Your task to perform on an android device: Go to privacy settings Image 0: 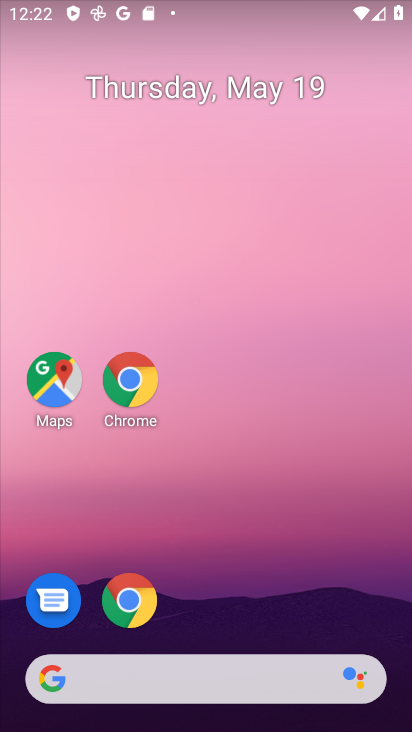
Step 0: drag from (298, 702) to (119, 120)
Your task to perform on an android device: Go to privacy settings Image 1: 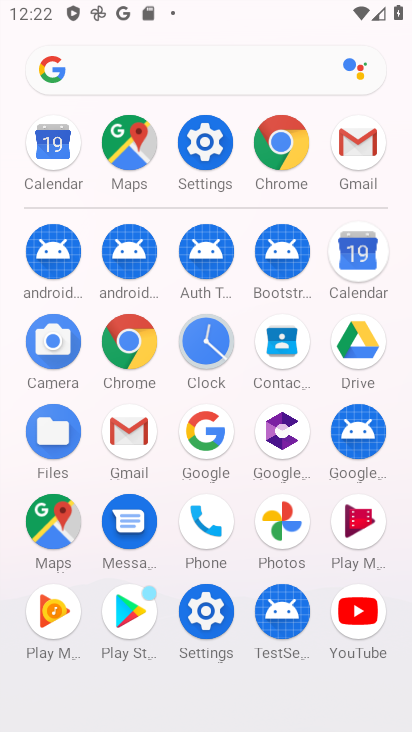
Step 1: click (193, 139)
Your task to perform on an android device: Go to privacy settings Image 2: 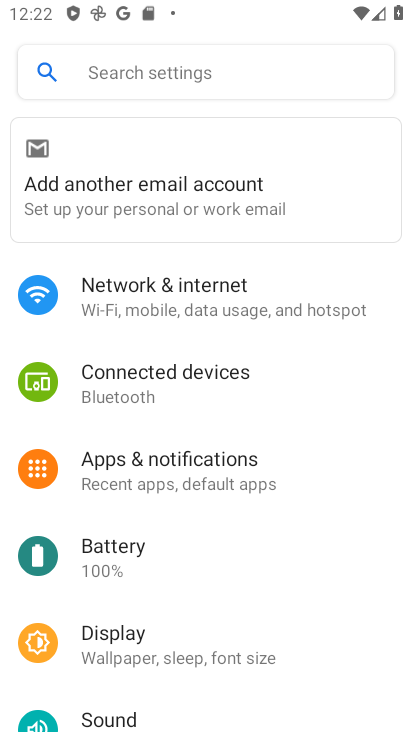
Step 2: drag from (146, 538) to (126, 236)
Your task to perform on an android device: Go to privacy settings Image 3: 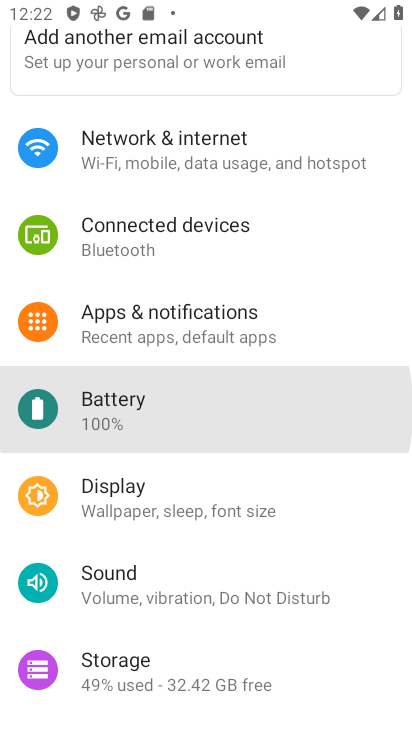
Step 3: drag from (104, 473) to (84, 212)
Your task to perform on an android device: Go to privacy settings Image 4: 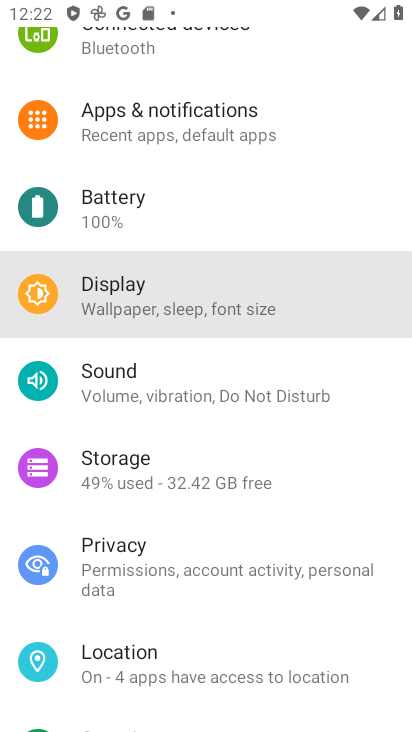
Step 4: drag from (127, 474) to (171, 150)
Your task to perform on an android device: Go to privacy settings Image 5: 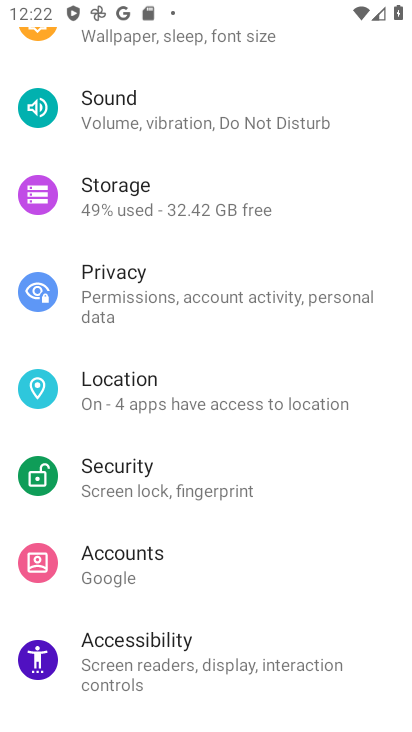
Step 5: click (118, 292)
Your task to perform on an android device: Go to privacy settings Image 6: 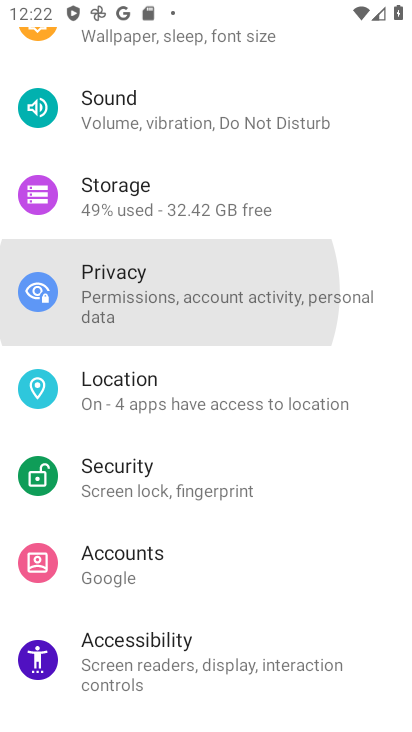
Step 6: click (118, 292)
Your task to perform on an android device: Go to privacy settings Image 7: 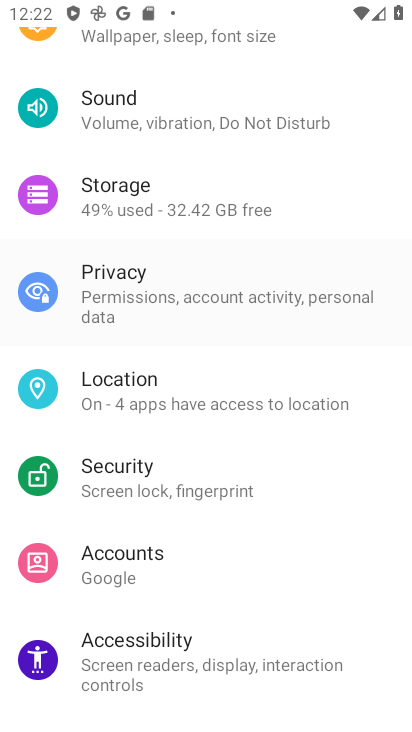
Step 7: click (118, 291)
Your task to perform on an android device: Go to privacy settings Image 8: 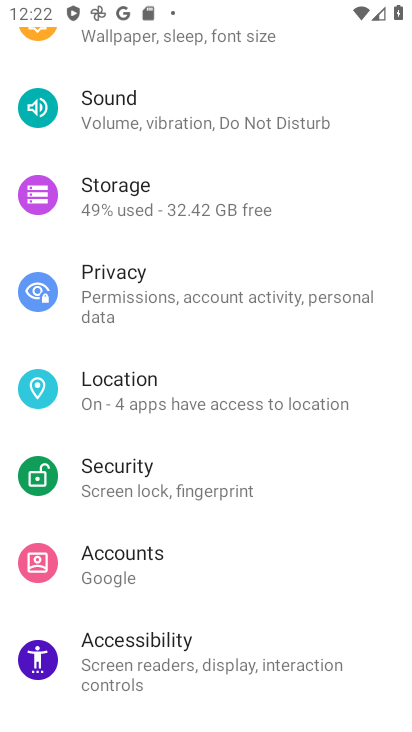
Step 8: click (123, 289)
Your task to perform on an android device: Go to privacy settings Image 9: 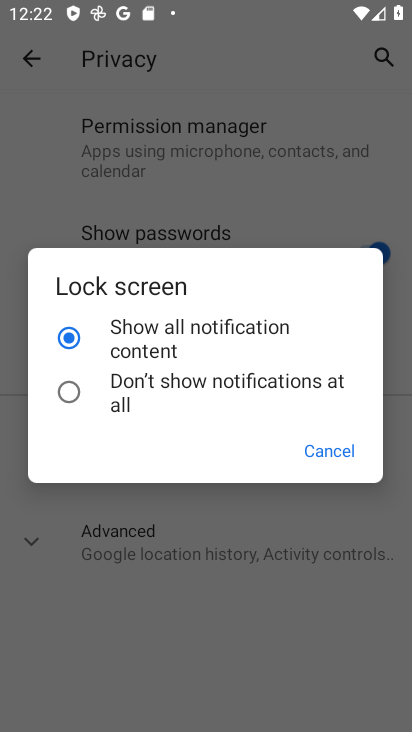
Step 9: click (327, 446)
Your task to perform on an android device: Go to privacy settings Image 10: 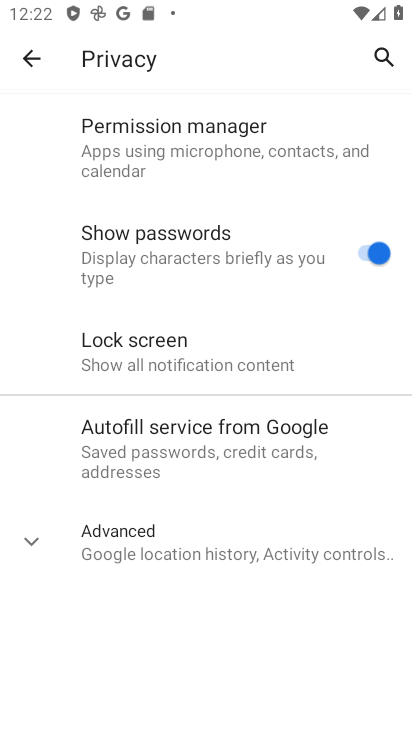
Step 10: click (36, 68)
Your task to perform on an android device: Go to privacy settings Image 11: 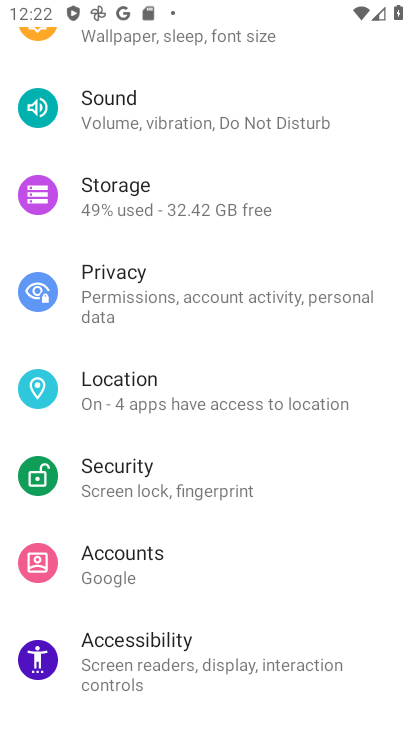
Step 11: task complete